Your task to perform on an android device: star an email in the gmail app Image 0: 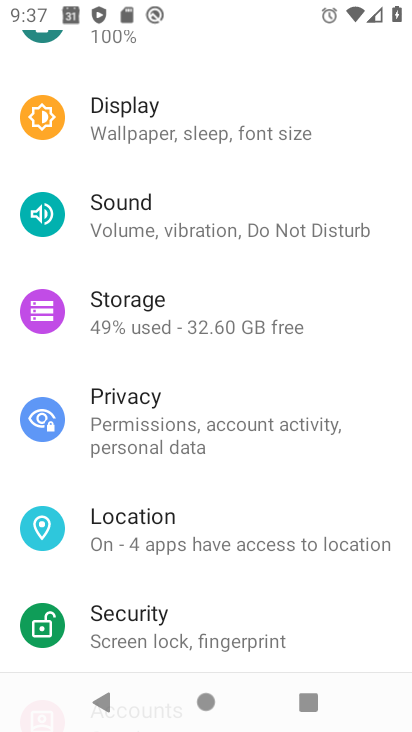
Step 0: press home button
Your task to perform on an android device: star an email in the gmail app Image 1: 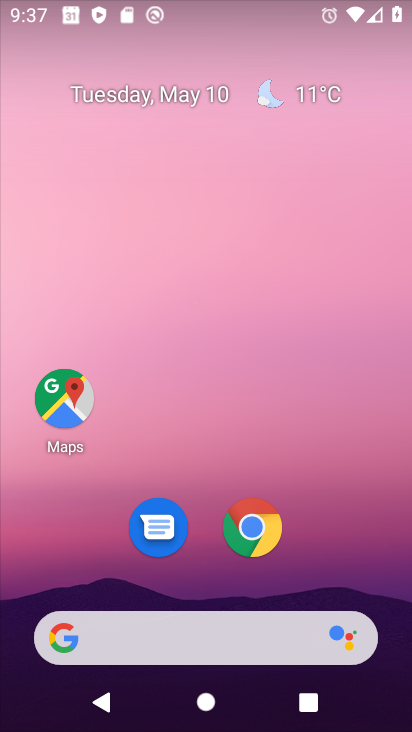
Step 1: drag from (310, 462) to (233, 72)
Your task to perform on an android device: star an email in the gmail app Image 2: 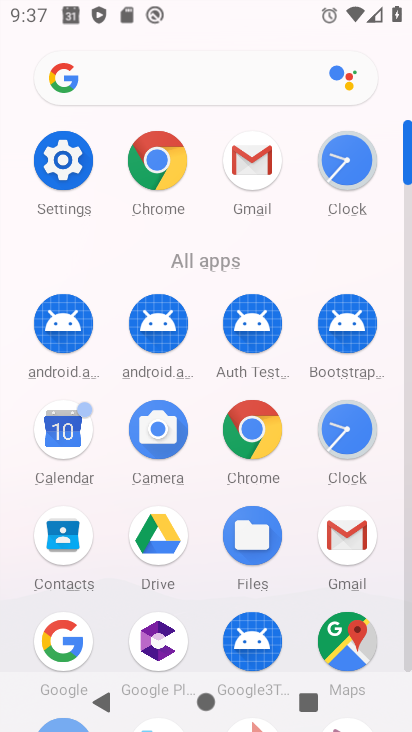
Step 2: click (250, 166)
Your task to perform on an android device: star an email in the gmail app Image 3: 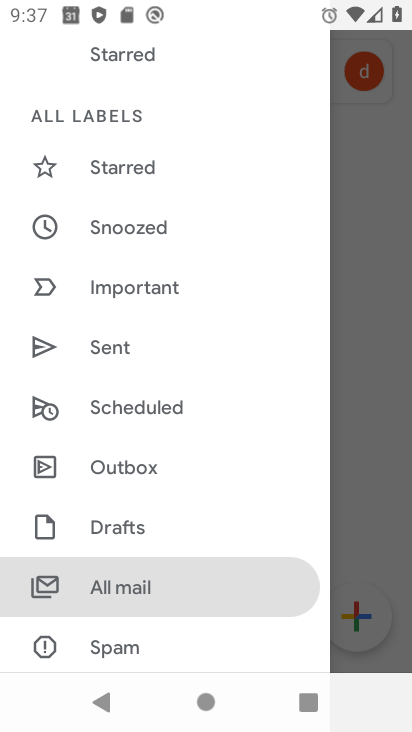
Step 3: click (201, 584)
Your task to perform on an android device: star an email in the gmail app Image 4: 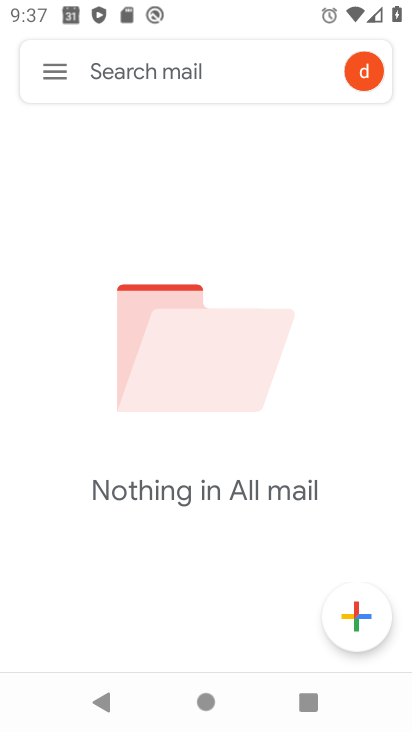
Step 4: task complete